Your task to perform on an android device: install app "Facebook" Image 0: 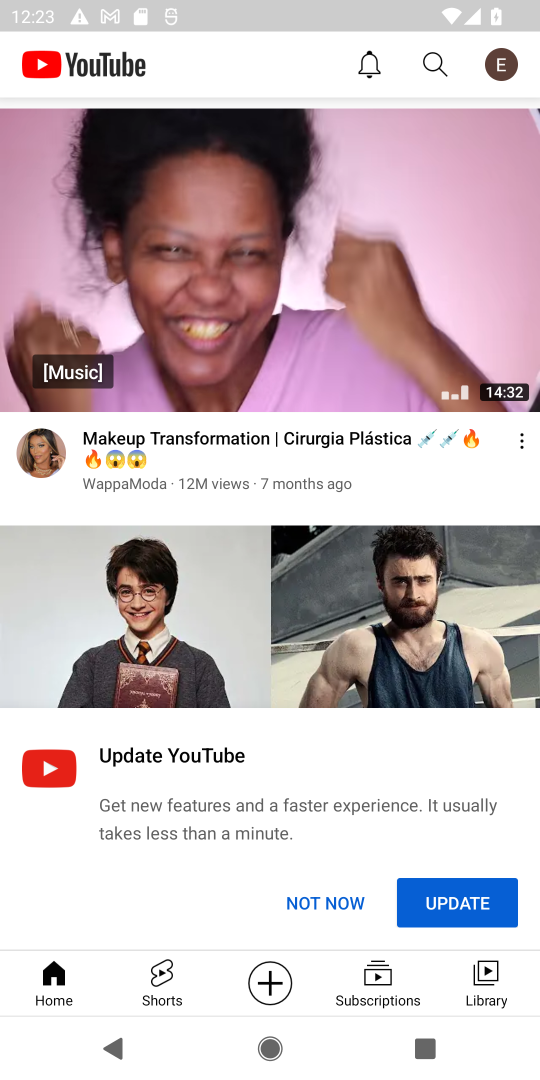
Step 0: press home button
Your task to perform on an android device: install app "Facebook" Image 1: 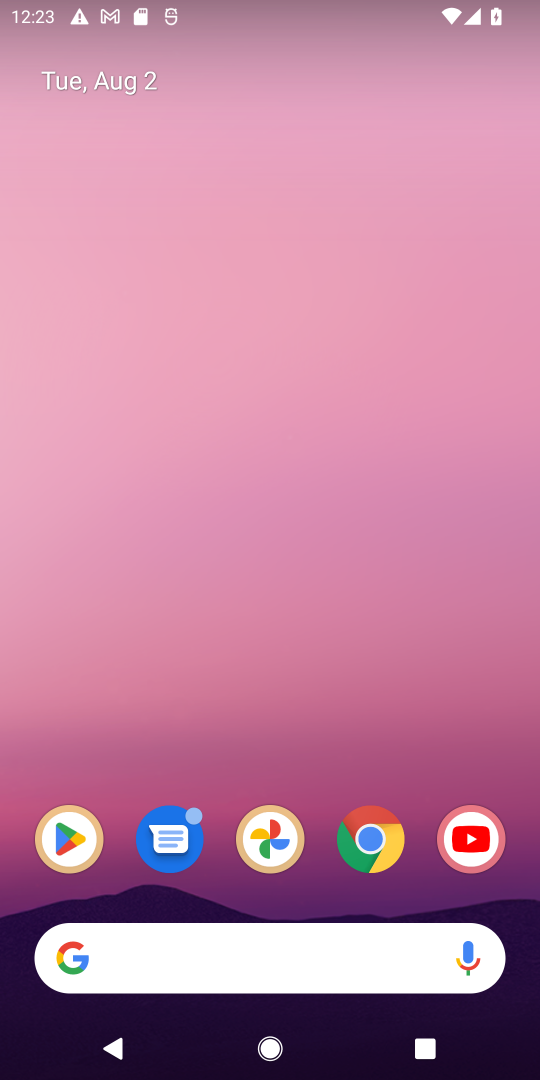
Step 1: drag from (343, 743) to (215, 235)
Your task to perform on an android device: install app "Facebook" Image 2: 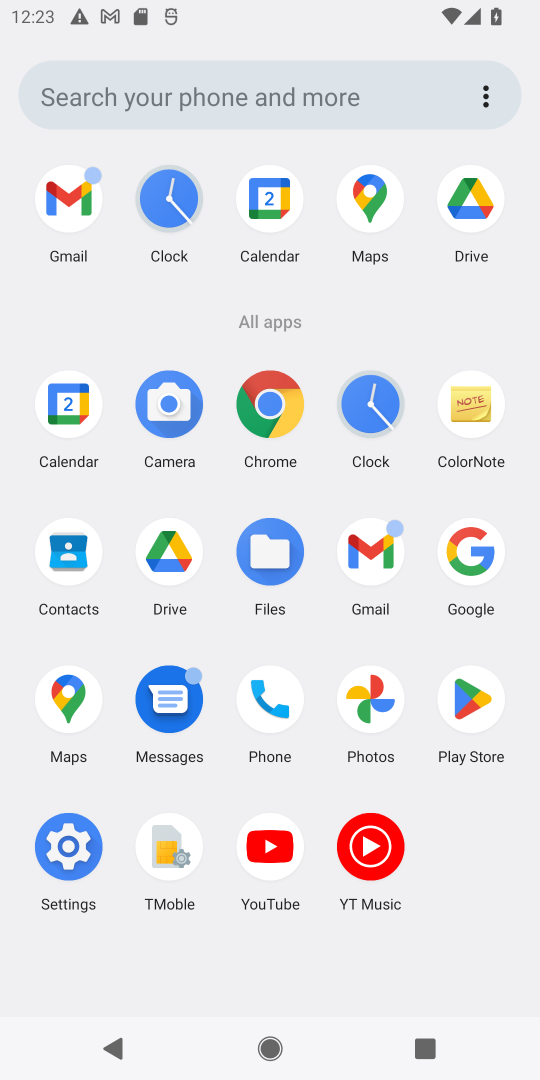
Step 2: click (467, 703)
Your task to perform on an android device: install app "Facebook" Image 3: 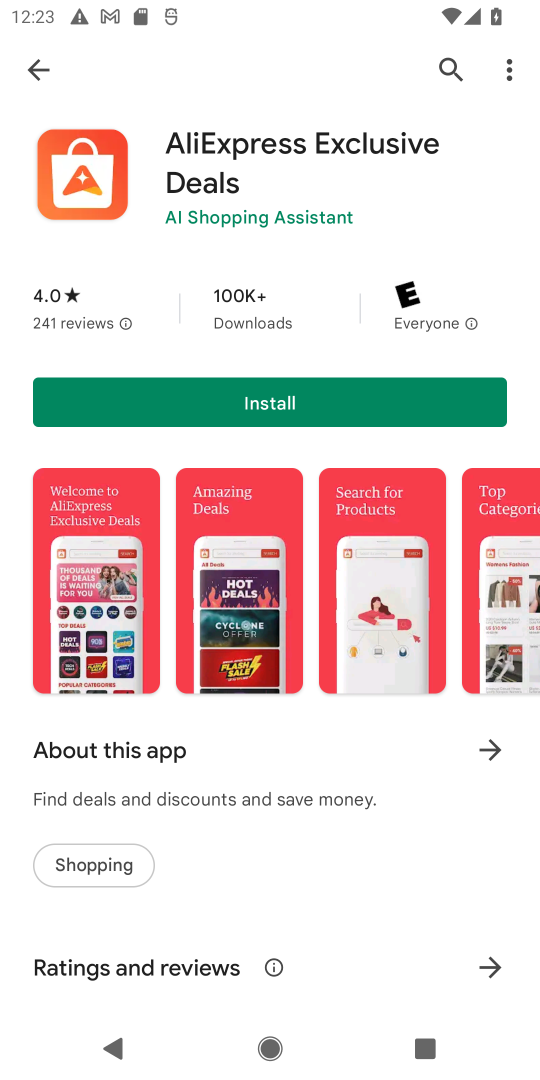
Step 3: click (431, 72)
Your task to perform on an android device: install app "Facebook" Image 4: 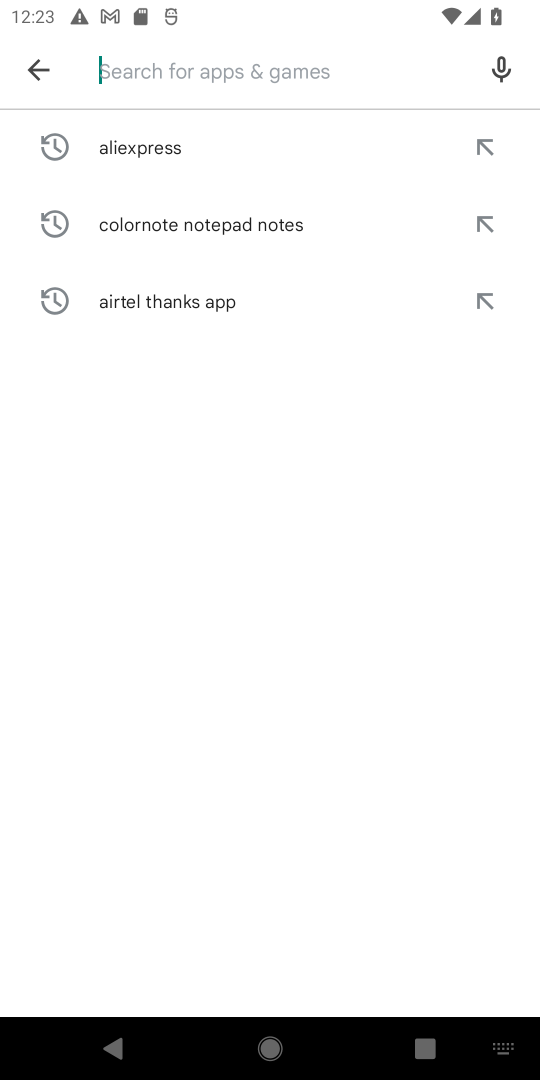
Step 4: type "facebook"
Your task to perform on an android device: install app "Facebook" Image 5: 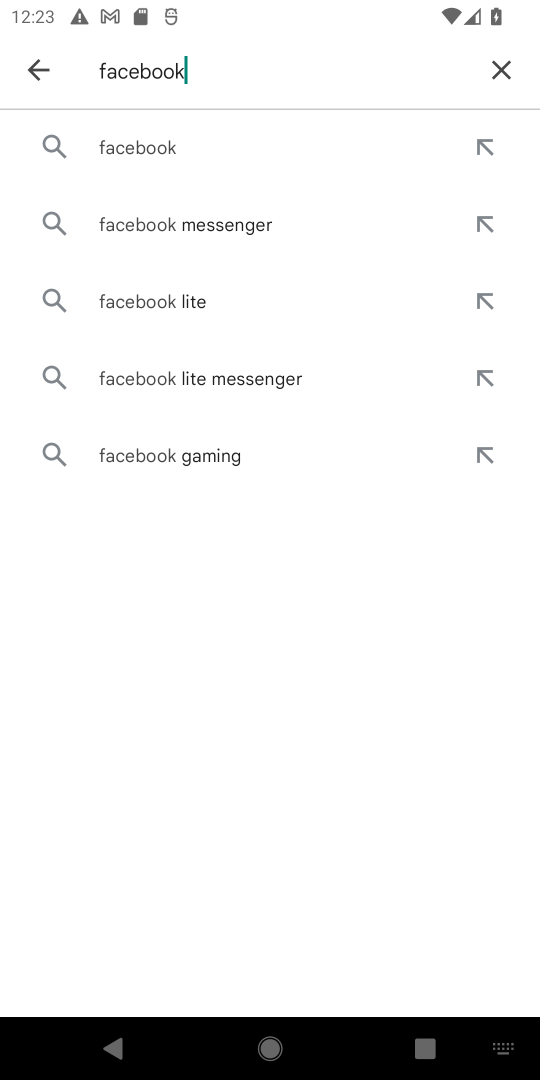
Step 5: click (176, 144)
Your task to perform on an android device: install app "Facebook" Image 6: 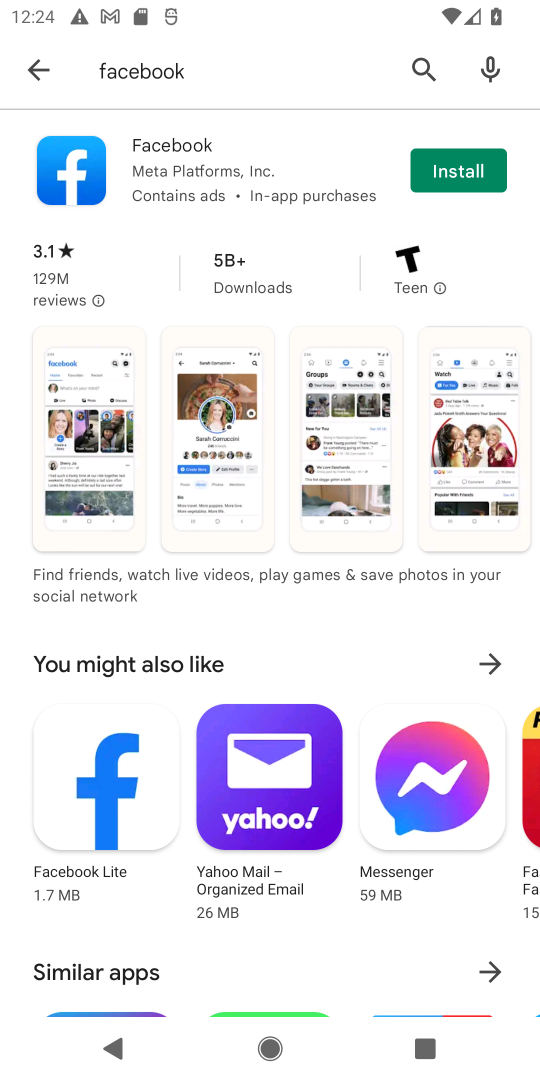
Step 6: click (463, 178)
Your task to perform on an android device: install app "Facebook" Image 7: 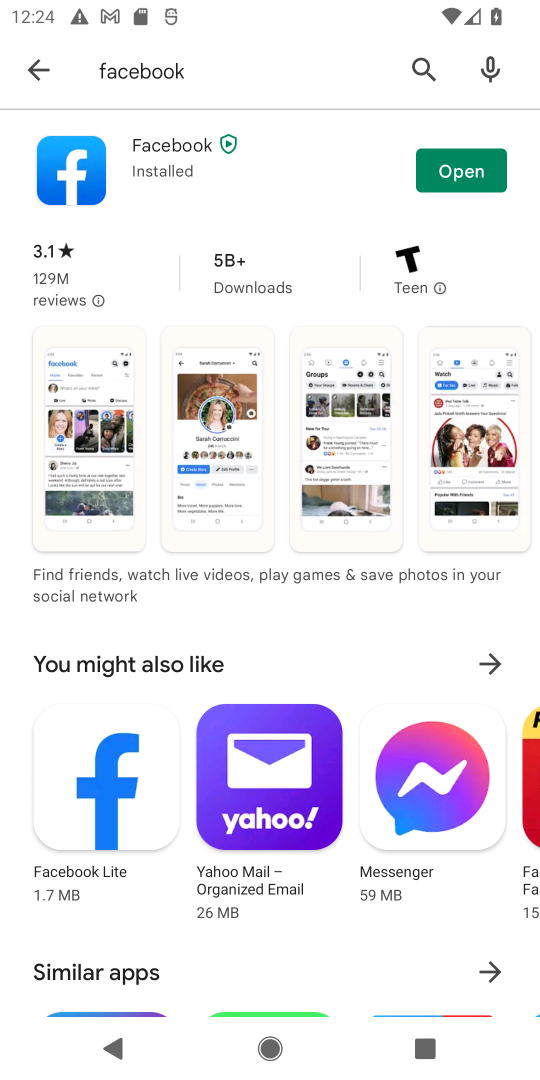
Step 7: task complete